Your task to perform on an android device: Open the phone app and click the voicemail tab. Image 0: 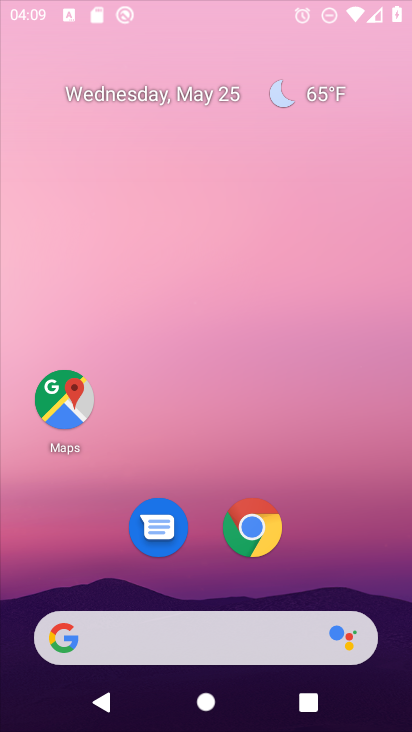
Step 0: click (358, 10)
Your task to perform on an android device: Open the phone app and click the voicemail tab. Image 1: 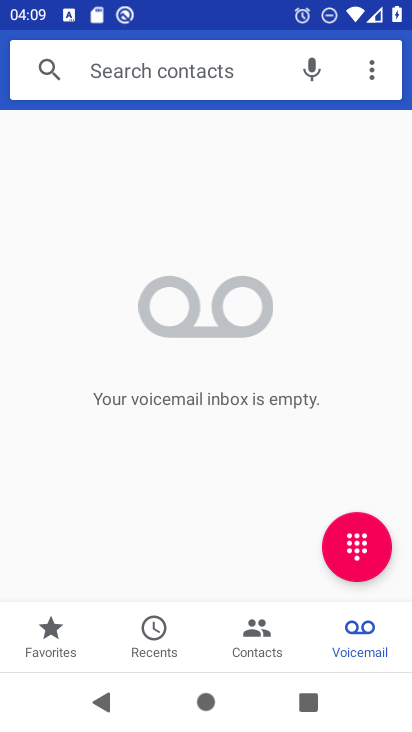
Step 1: press home button
Your task to perform on an android device: Open the phone app and click the voicemail tab. Image 2: 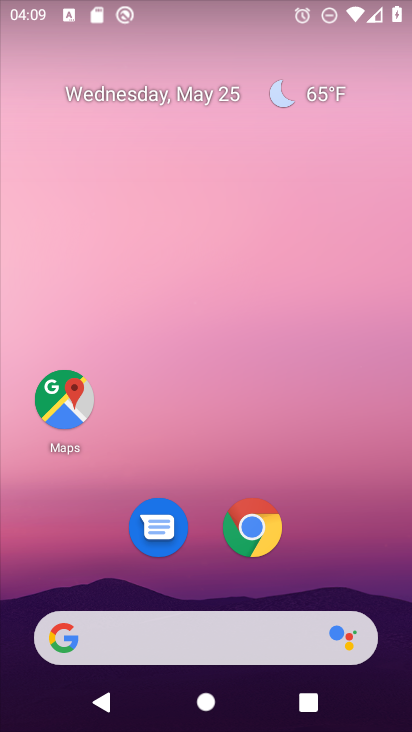
Step 2: drag from (299, 495) to (333, 138)
Your task to perform on an android device: Open the phone app and click the voicemail tab. Image 3: 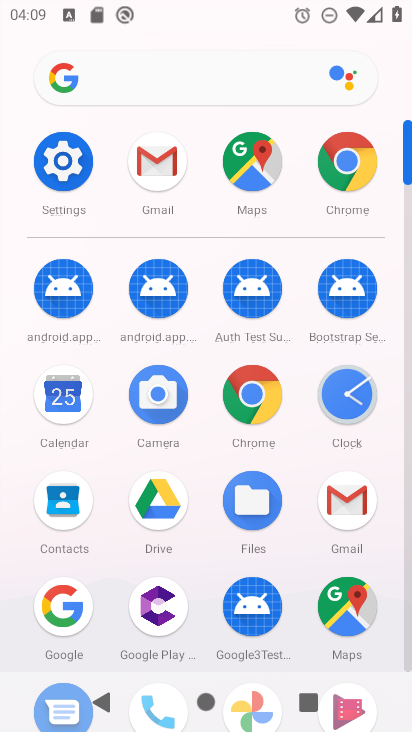
Step 3: drag from (209, 627) to (213, 344)
Your task to perform on an android device: Open the phone app and click the voicemail tab. Image 4: 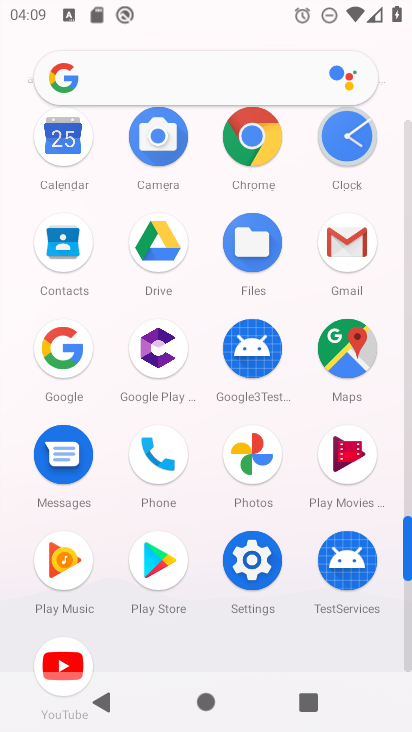
Step 4: click (167, 458)
Your task to perform on an android device: Open the phone app and click the voicemail tab. Image 5: 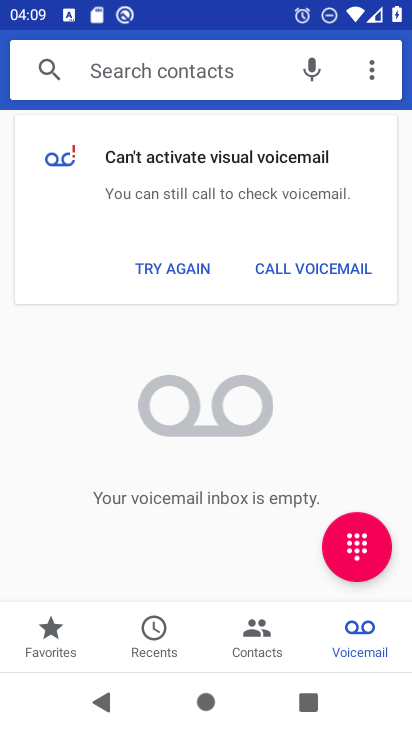
Step 5: task complete